Your task to perform on an android device: What's the weather? Image 0: 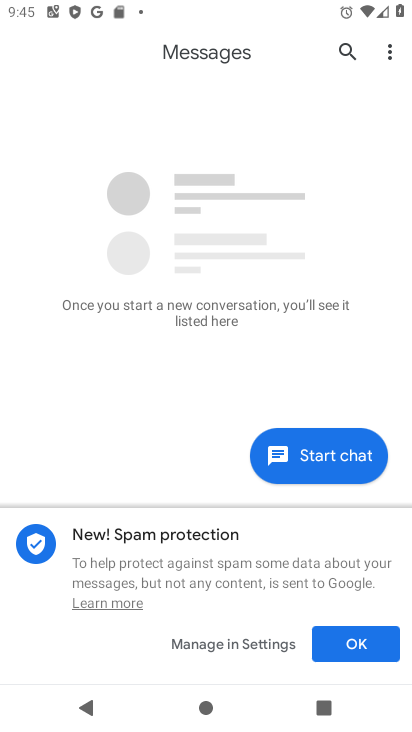
Step 0: press home button
Your task to perform on an android device: What's the weather? Image 1: 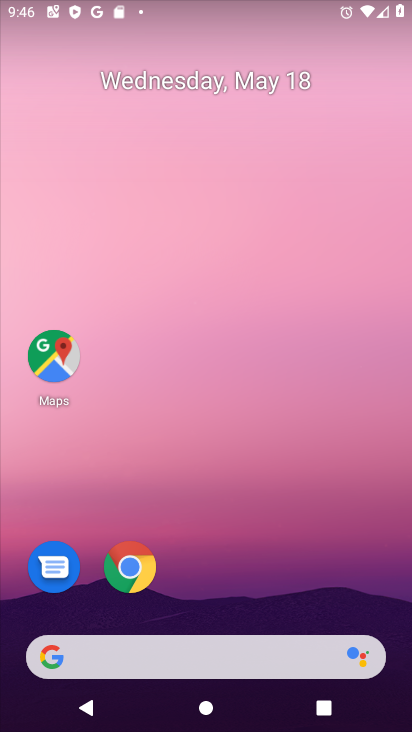
Step 1: drag from (13, 235) to (337, 270)
Your task to perform on an android device: What's the weather? Image 2: 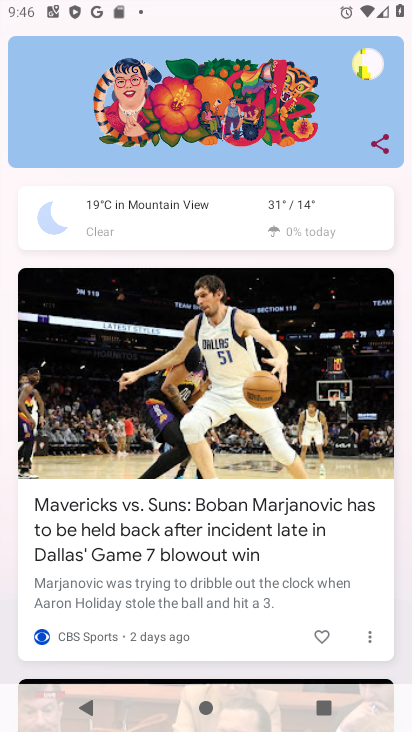
Step 2: click (69, 225)
Your task to perform on an android device: What's the weather? Image 3: 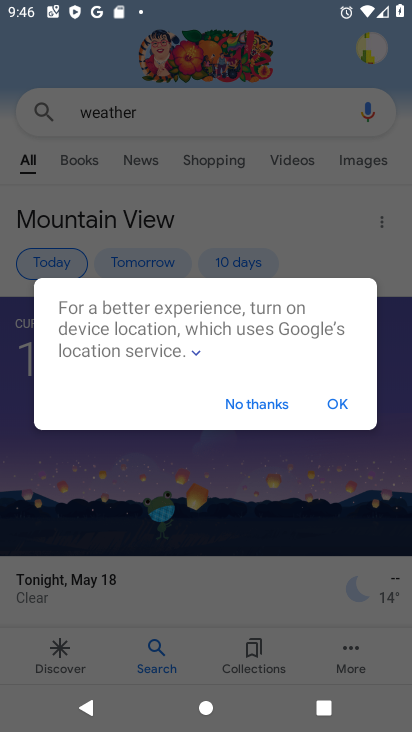
Step 3: click (337, 406)
Your task to perform on an android device: What's the weather? Image 4: 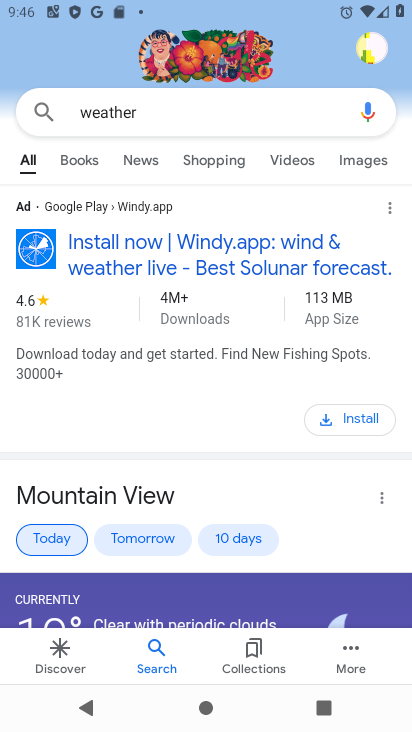
Step 4: task complete